Your task to perform on an android device: turn off airplane mode Image 0: 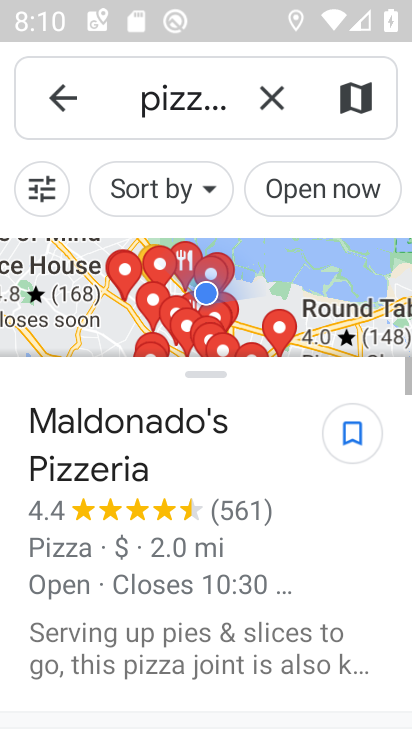
Step 0: press back button
Your task to perform on an android device: turn off airplane mode Image 1: 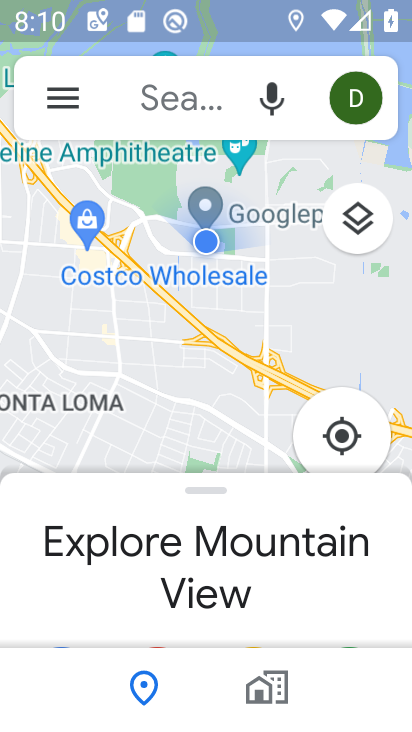
Step 1: task complete